Your task to perform on an android device: change alarm snooze length Image 0: 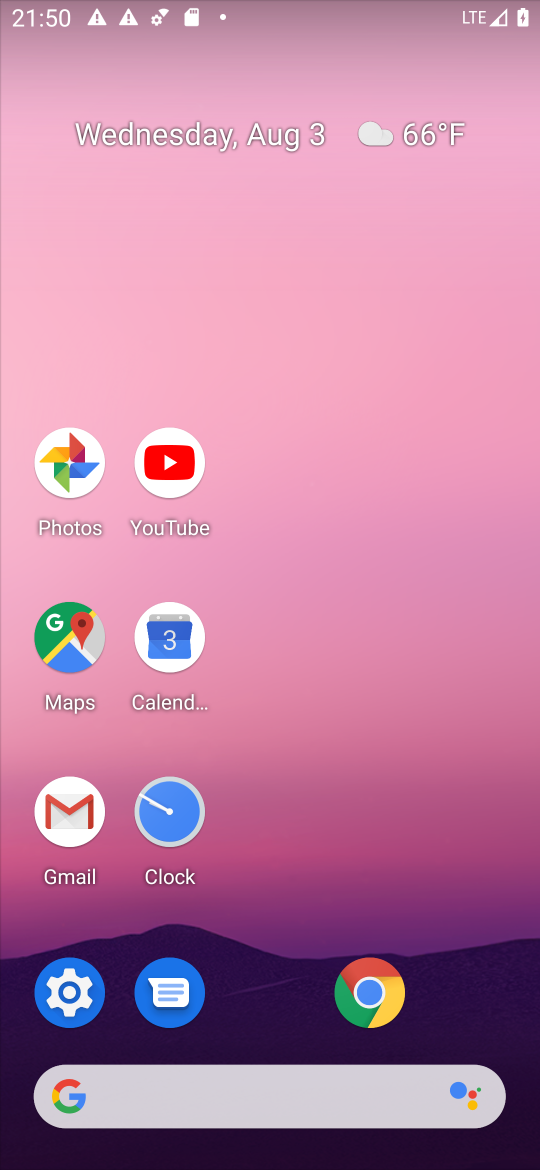
Step 0: click (164, 808)
Your task to perform on an android device: change alarm snooze length Image 1: 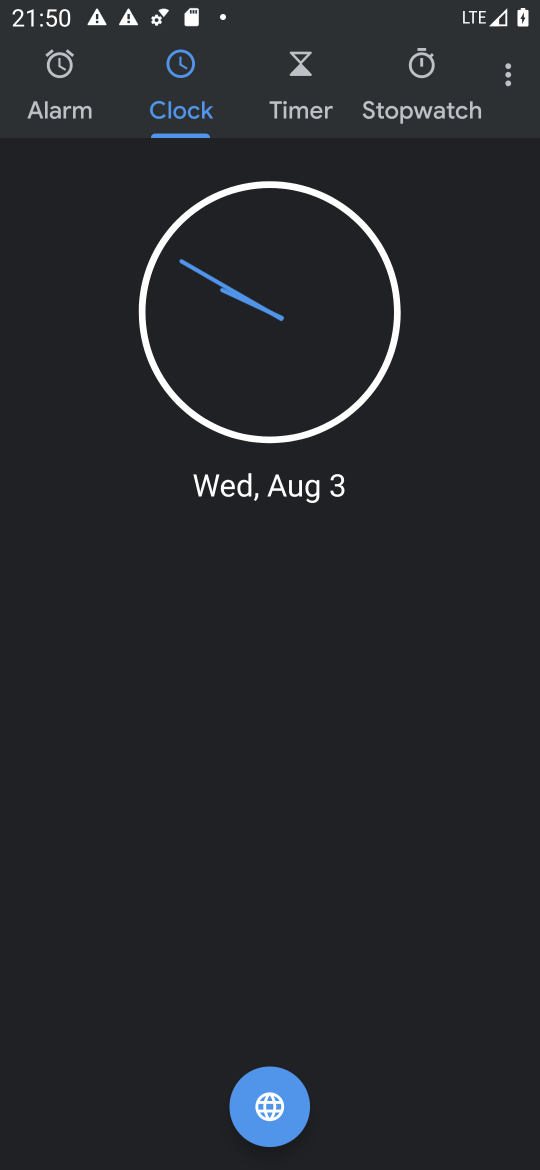
Step 1: click (500, 77)
Your task to perform on an android device: change alarm snooze length Image 2: 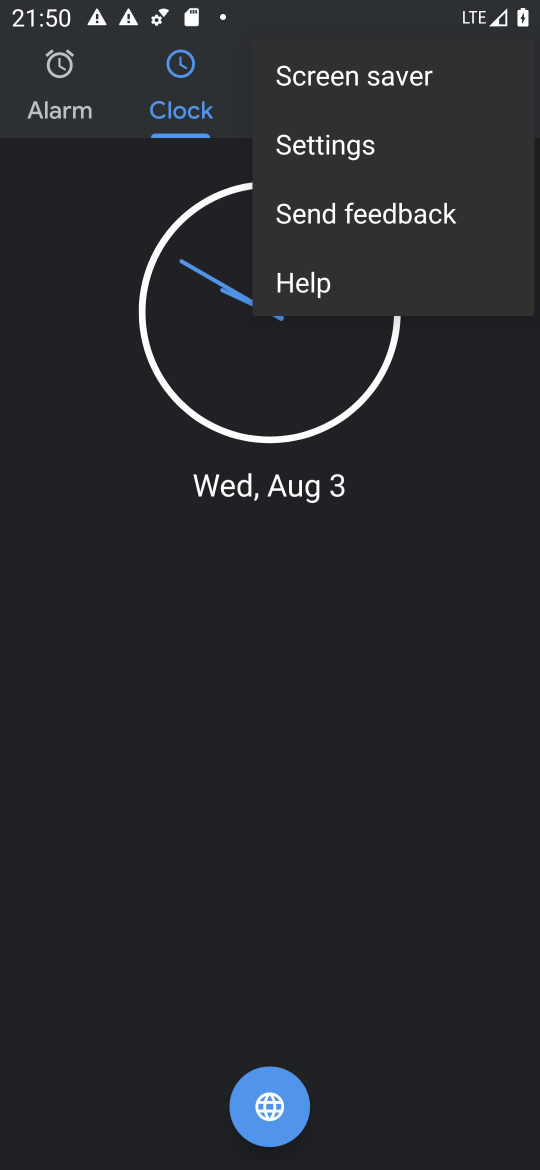
Step 2: click (365, 146)
Your task to perform on an android device: change alarm snooze length Image 3: 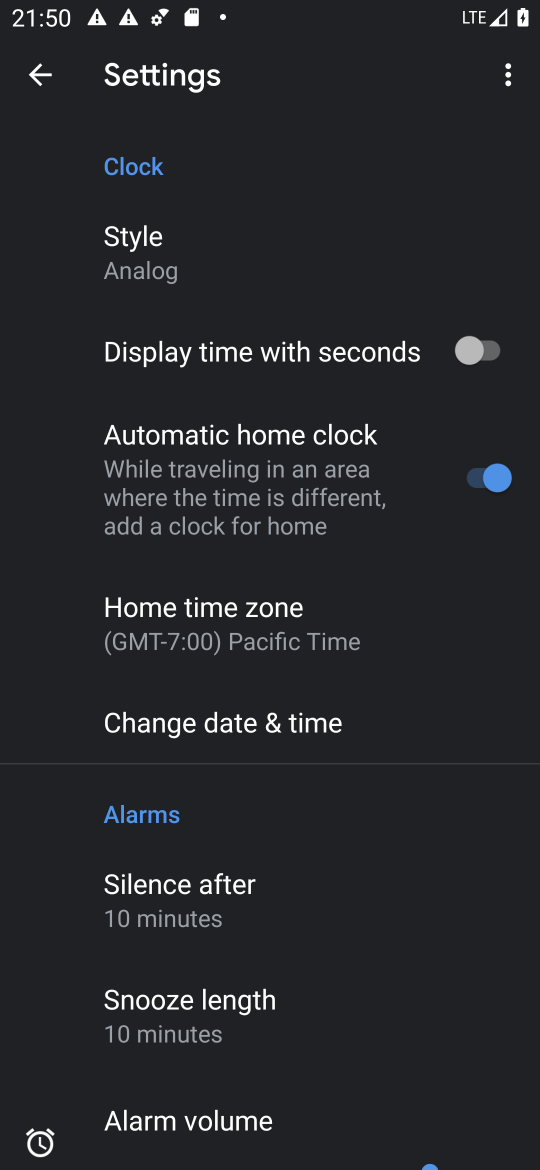
Step 3: click (192, 996)
Your task to perform on an android device: change alarm snooze length Image 4: 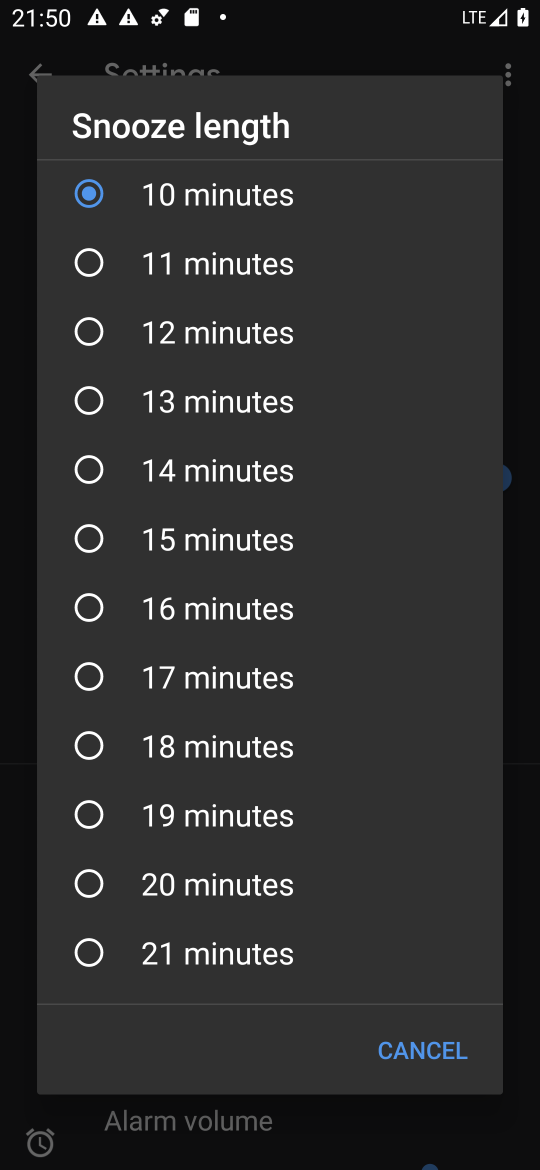
Step 4: click (94, 399)
Your task to perform on an android device: change alarm snooze length Image 5: 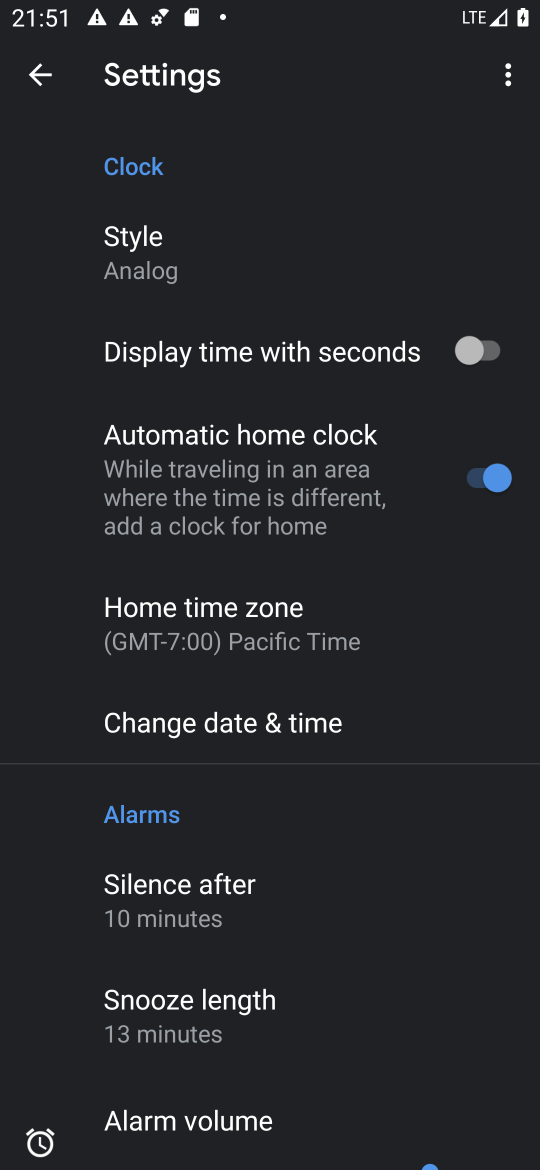
Step 5: task complete